Your task to perform on an android device: toggle show notifications on the lock screen Image 0: 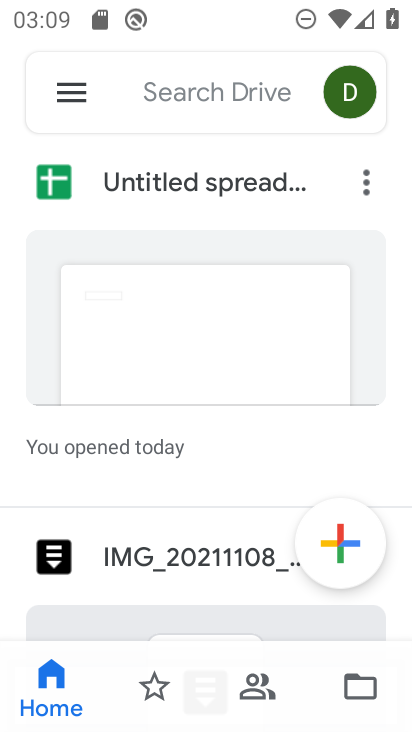
Step 0: press home button
Your task to perform on an android device: toggle show notifications on the lock screen Image 1: 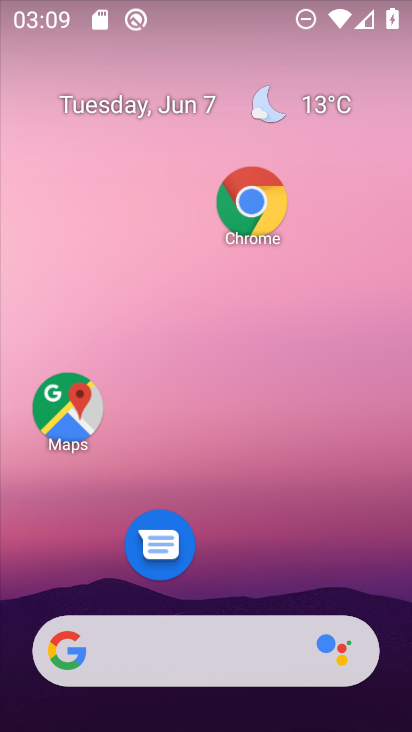
Step 1: drag from (294, 577) to (286, 212)
Your task to perform on an android device: toggle show notifications on the lock screen Image 2: 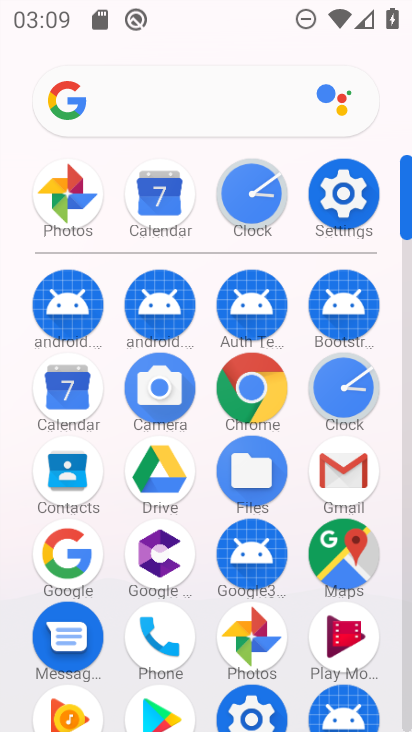
Step 2: click (330, 173)
Your task to perform on an android device: toggle show notifications on the lock screen Image 3: 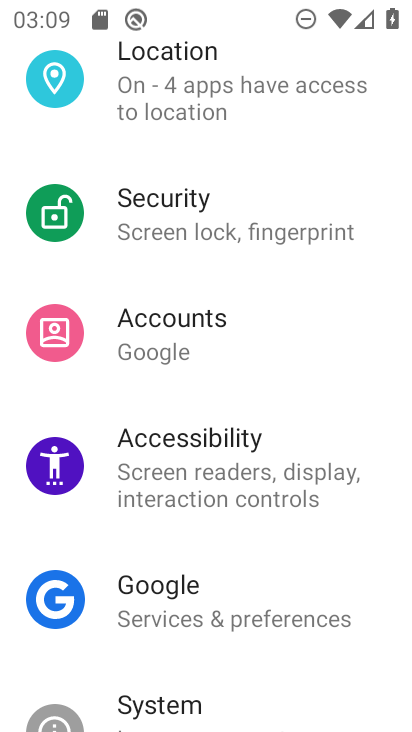
Step 3: drag from (199, 88) to (245, 547)
Your task to perform on an android device: toggle show notifications on the lock screen Image 4: 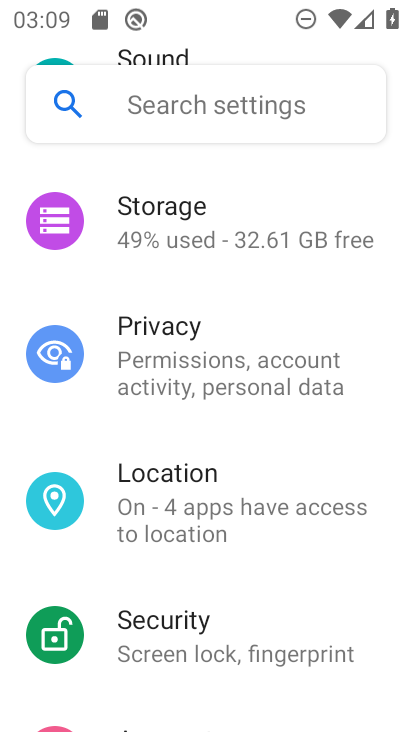
Step 4: drag from (219, 227) to (239, 700)
Your task to perform on an android device: toggle show notifications on the lock screen Image 5: 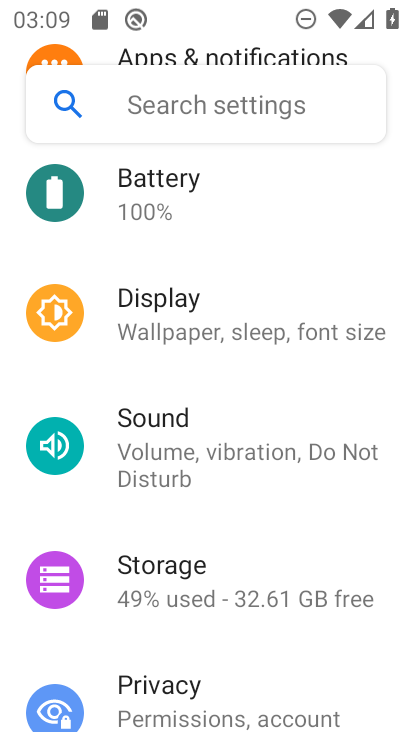
Step 5: drag from (225, 165) to (262, 589)
Your task to perform on an android device: toggle show notifications on the lock screen Image 6: 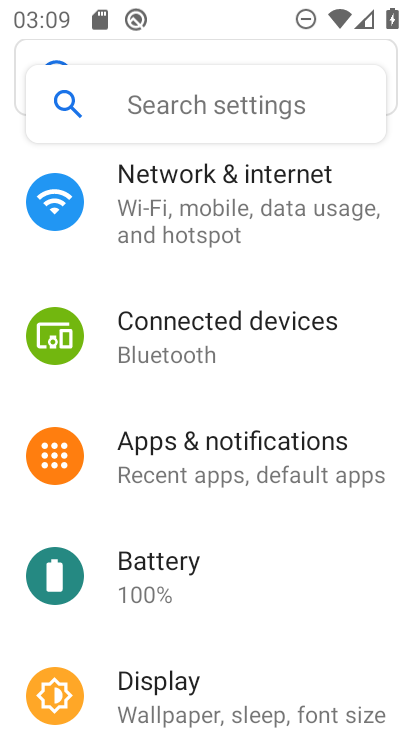
Step 6: drag from (253, 187) to (262, 504)
Your task to perform on an android device: toggle show notifications on the lock screen Image 7: 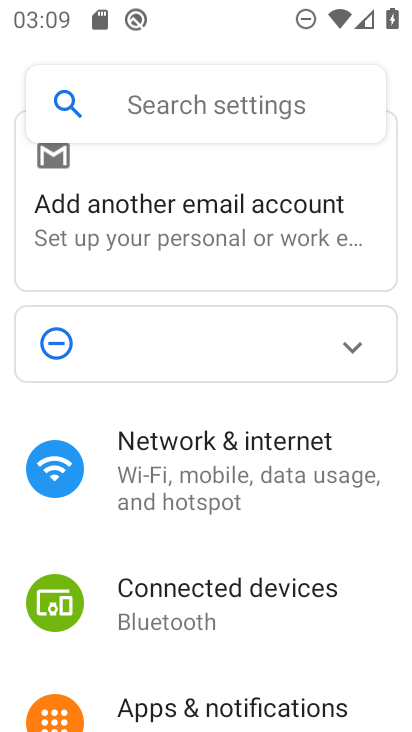
Step 7: click (230, 457)
Your task to perform on an android device: toggle show notifications on the lock screen Image 8: 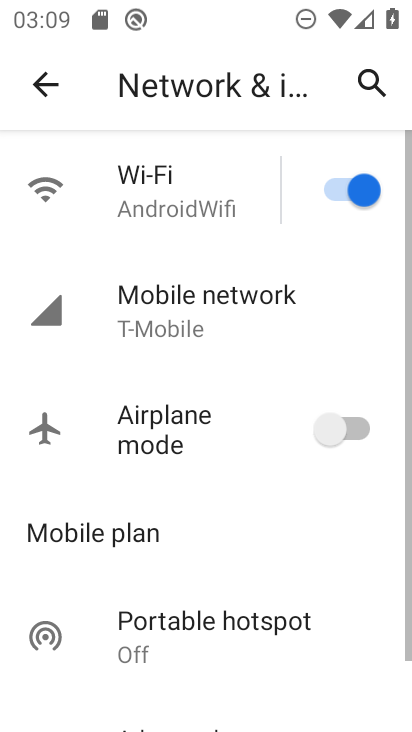
Step 8: drag from (209, 634) to (226, 312)
Your task to perform on an android device: toggle show notifications on the lock screen Image 9: 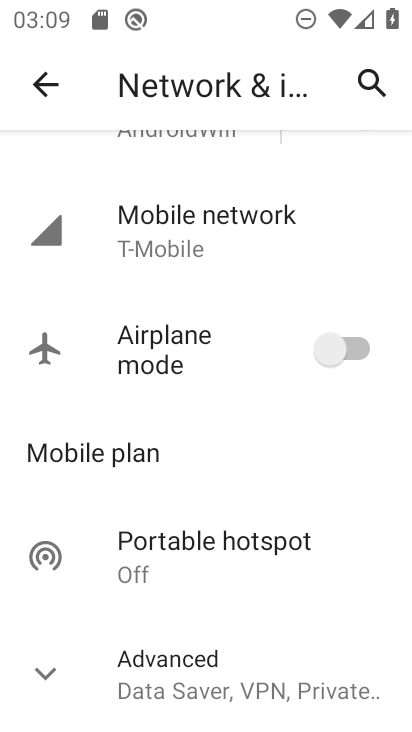
Step 9: drag from (204, 614) to (221, 260)
Your task to perform on an android device: toggle show notifications on the lock screen Image 10: 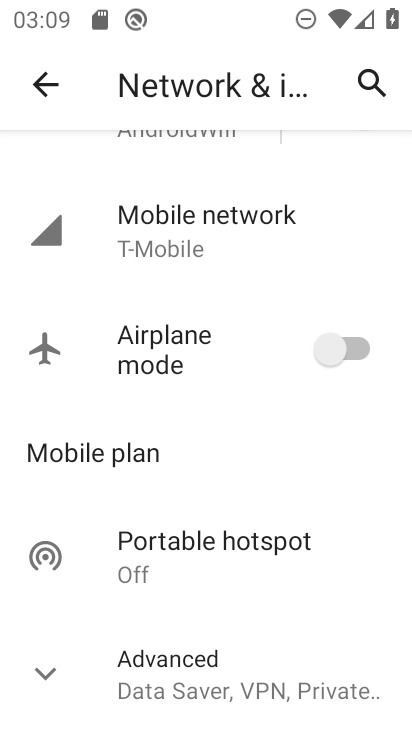
Step 10: drag from (194, 642) to (198, 411)
Your task to perform on an android device: toggle show notifications on the lock screen Image 11: 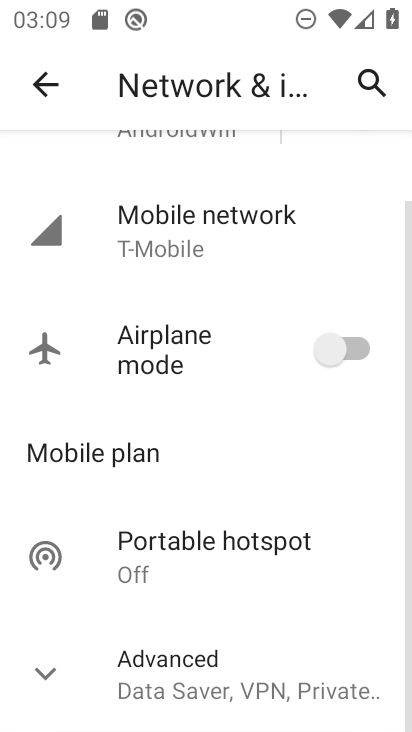
Step 11: click (45, 84)
Your task to perform on an android device: toggle show notifications on the lock screen Image 12: 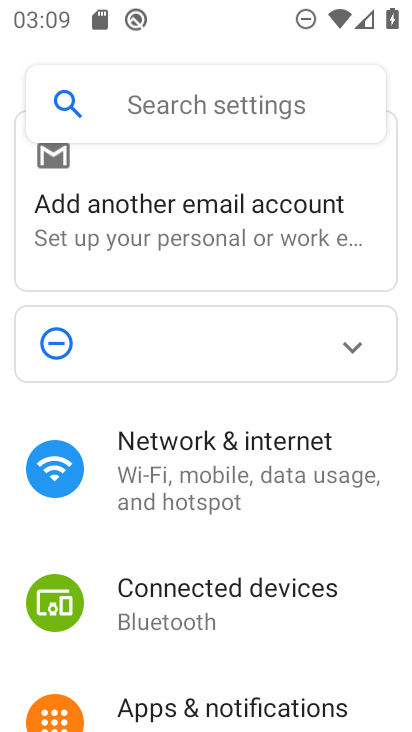
Step 12: drag from (214, 652) to (246, 429)
Your task to perform on an android device: toggle show notifications on the lock screen Image 13: 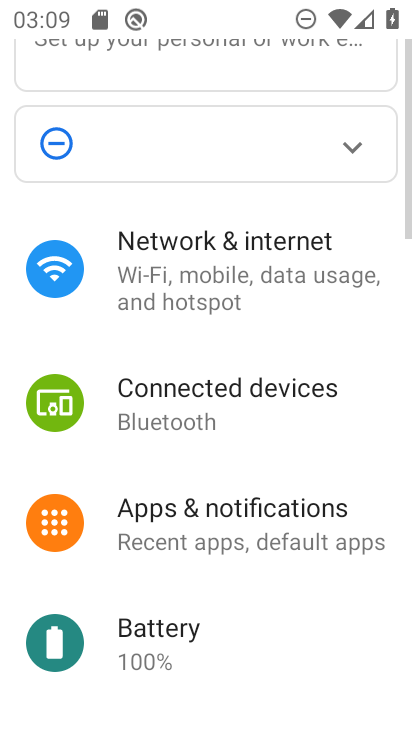
Step 13: click (254, 515)
Your task to perform on an android device: toggle show notifications on the lock screen Image 14: 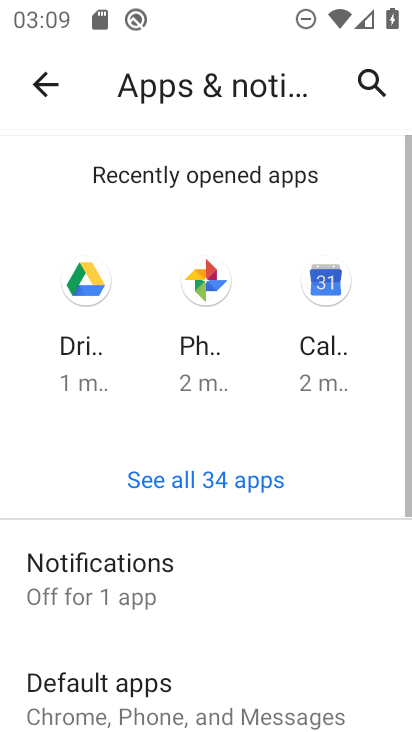
Step 14: drag from (172, 631) to (192, 313)
Your task to perform on an android device: toggle show notifications on the lock screen Image 15: 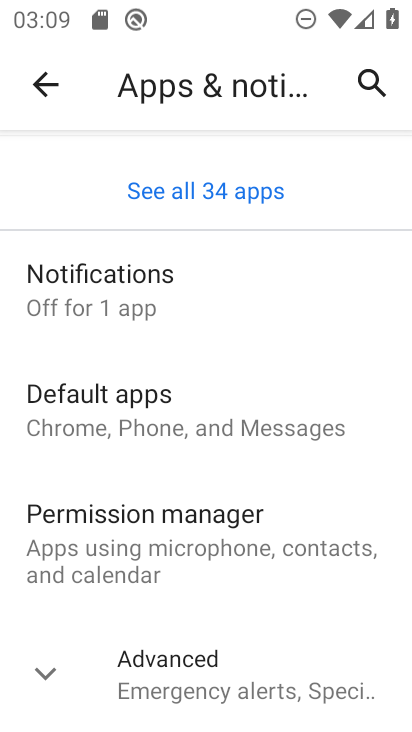
Step 15: drag from (171, 632) to (201, 450)
Your task to perform on an android device: toggle show notifications on the lock screen Image 16: 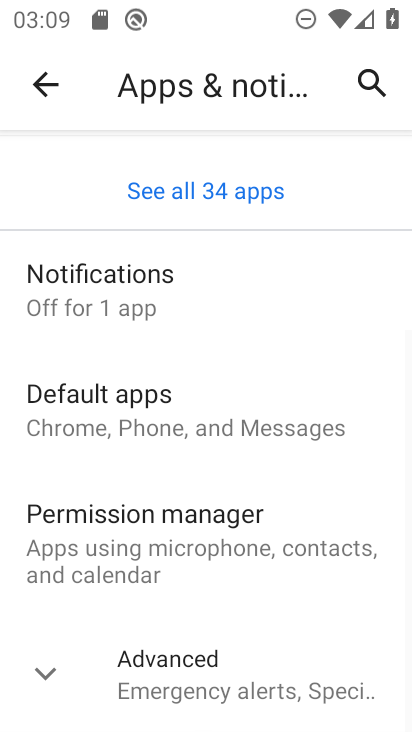
Step 16: click (153, 263)
Your task to perform on an android device: toggle show notifications on the lock screen Image 17: 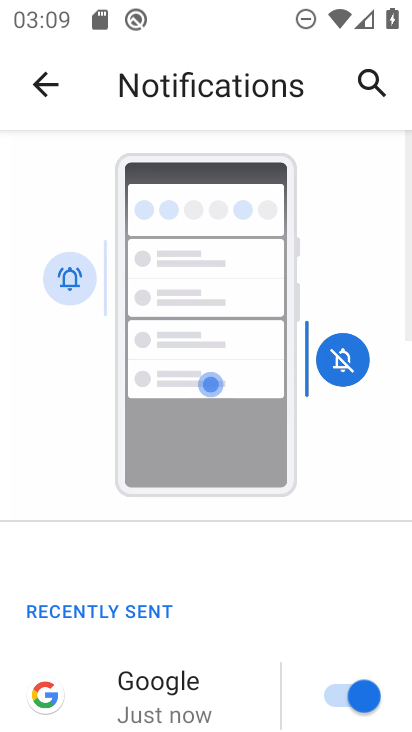
Step 17: drag from (185, 630) to (230, 295)
Your task to perform on an android device: toggle show notifications on the lock screen Image 18: 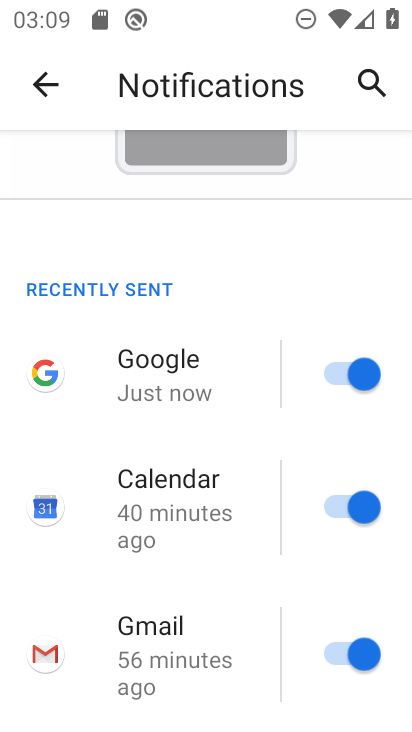
Step 18: drag from (164, 619) to (205, 219)
Your task to perform on an android device: toggle show notifications on the lock screen Image 19: 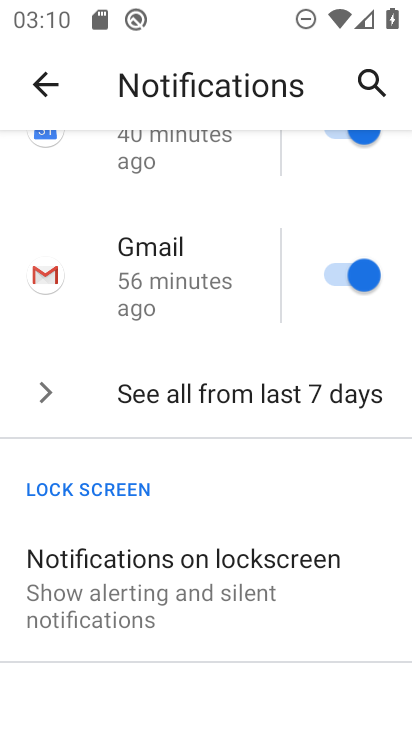
Step 19: click (215, 568)
Your task to perform on an android device: toggle show notifications on the lock screen Image 20: 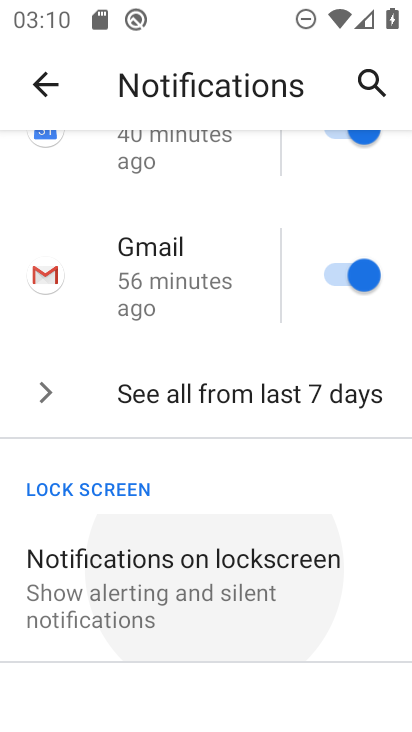
Step 20: click (215, 557)
Your task to perform on an android device: toggle show notifications on the lock screen Image 21: 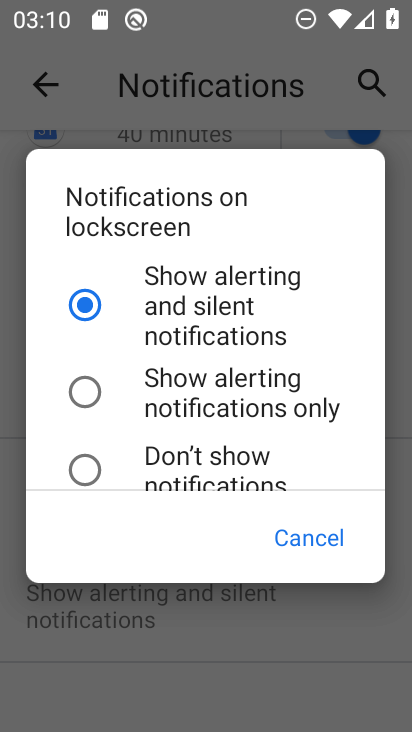
Step 21: click (153, 465)
Your task to perform on an android device: toggle show notifications on the lock screen Image 22: 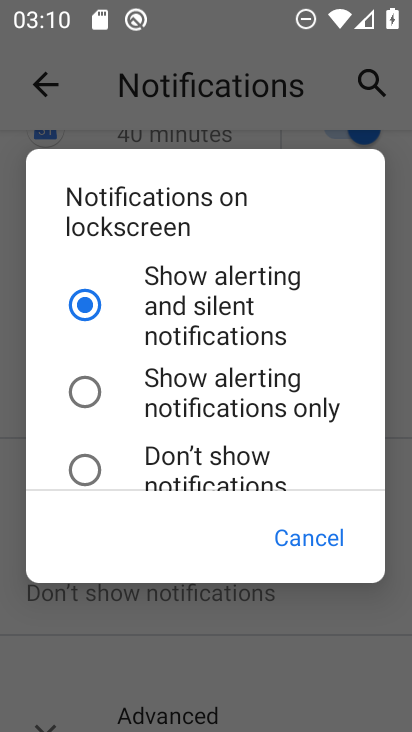
Step 22: click (103, 469)
Your task to perform on an android device: toggle show notifications on the lock screen Image 23: 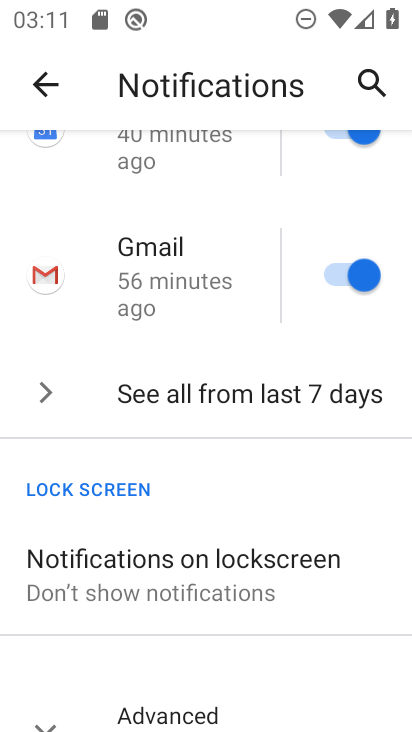
Step 23: task complete